Your task to perform on an android device: turn on the 24-hour format for clock Image 0: 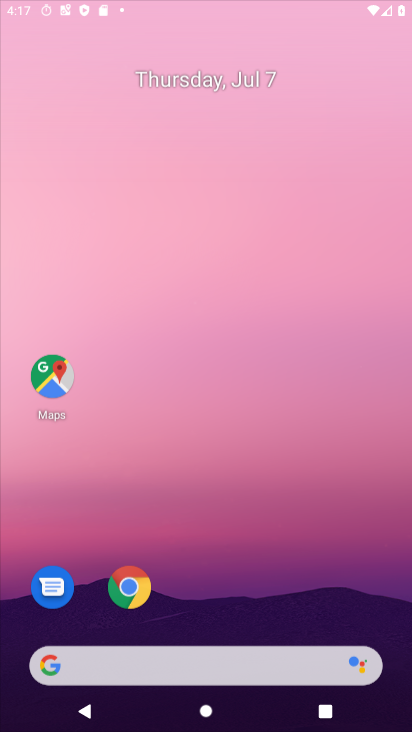
Step 0: press home button
Your task to perform on an android device: turn on the 24-hour format for clock Image 1: 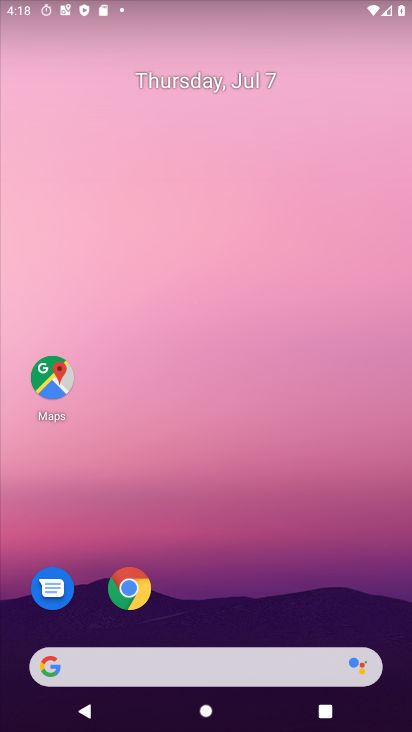
Step 1: drag from (267, 607) to (366, 64)
Your task to perform on an android device: turn on the 24-hour format for clock Image 2: 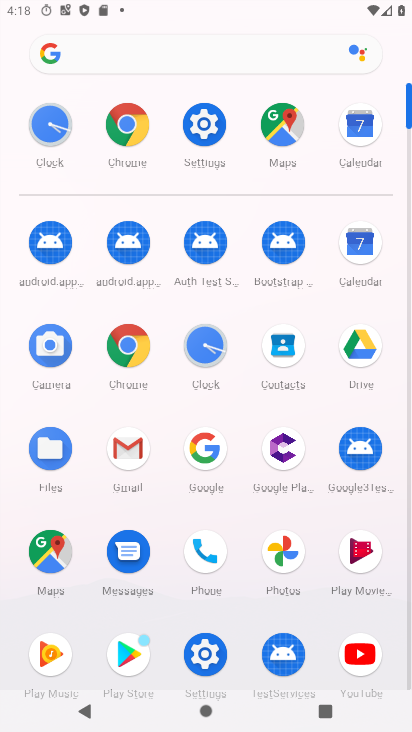
Step 2: click (211, 118)
Your task to perform on an android device: turn on the 24-hour format for clock Image 3: 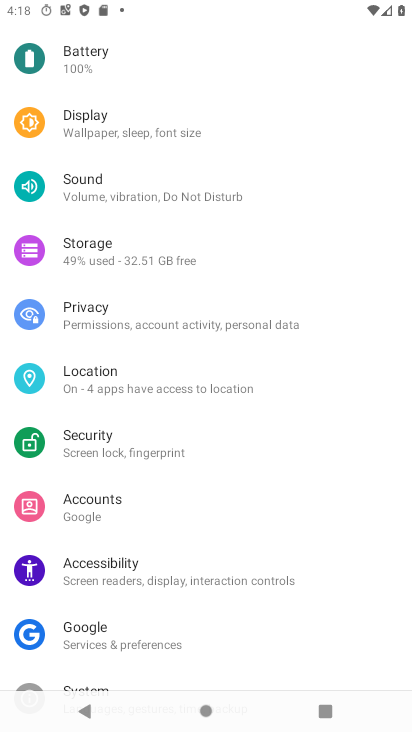
Step 3: drag from (270, 527) to (372, 164)
Your task to perform on an android device: turn on the 24-hour format for clock Image 4: 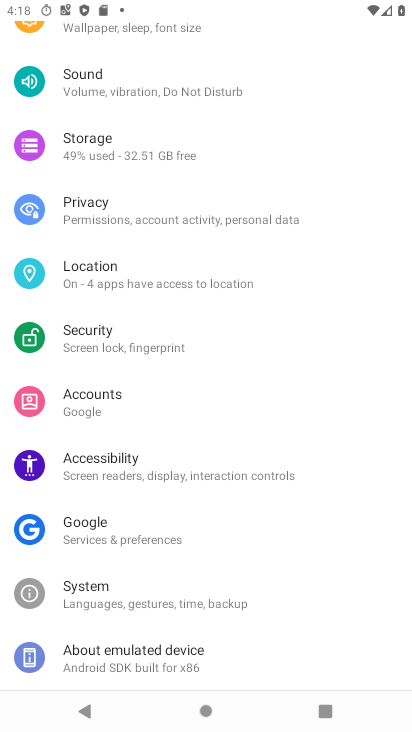
Step 4: click (174, 605)
Your task to perform on an android device: turn on the 24-hour format for clock Image 5: 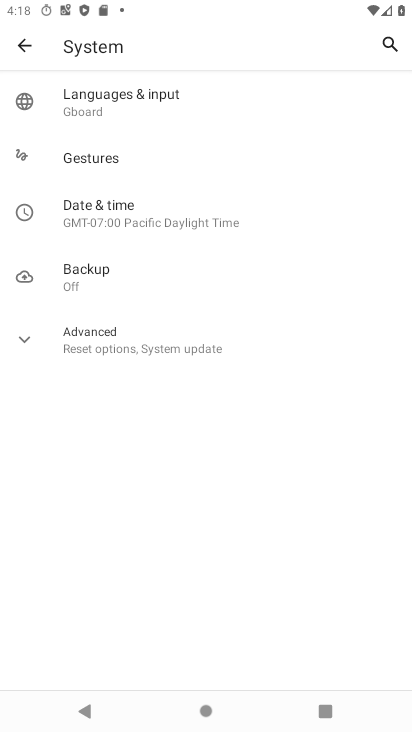
Step 5: click (98, 224)
Your task to perform on an android device: turn on the 24-hour format for clock Image 6: 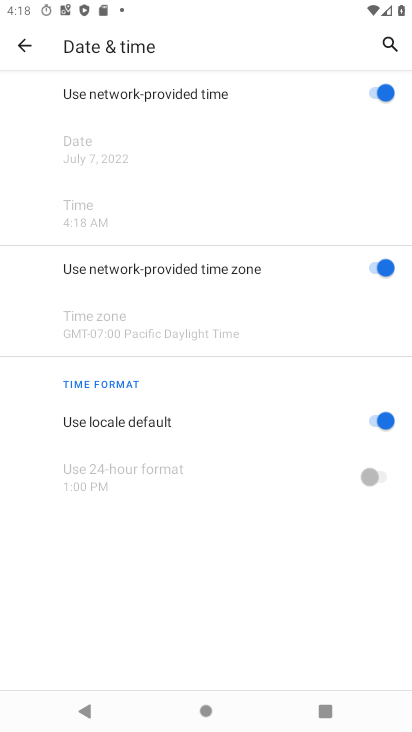
Step 6: click (374, 478)
Your task to perform on an android device: turn on the 24-hour format for clock Image 7: 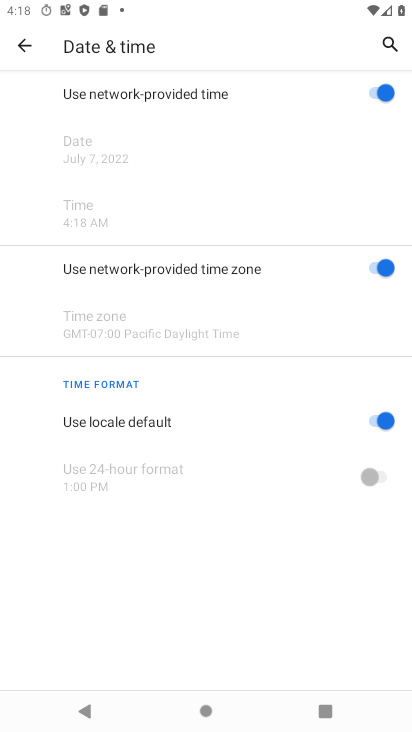
Step 7: click (388, 418)
Your task to perform on an android device: turn on the 24-hour format for clock Image 8: 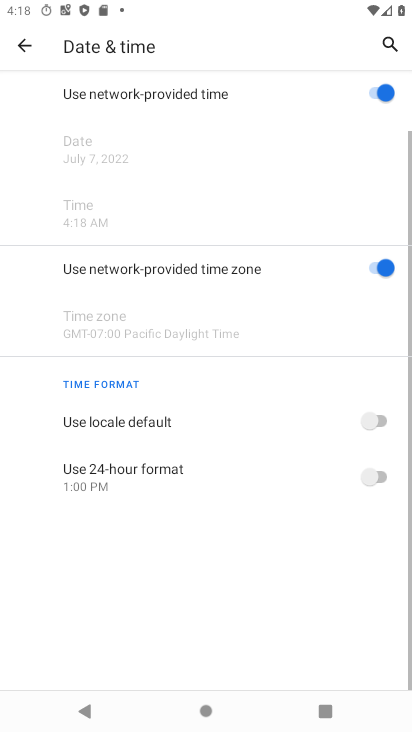
Step 8: click (368, 473)
Your task to perform on an android device: turn on the 24-hour format for clock Image 9: 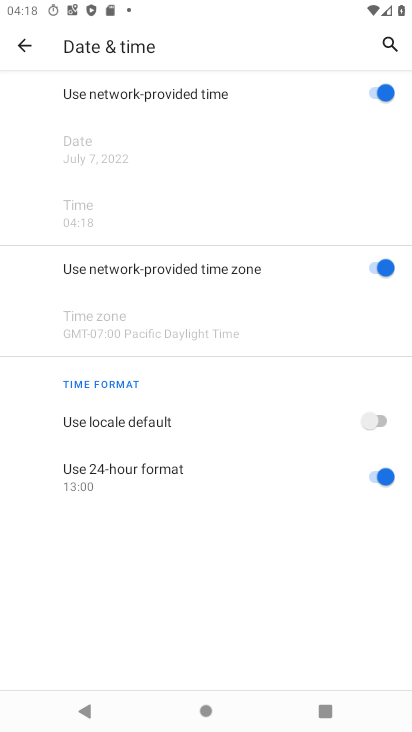
Step 9: task complete